Your task to perform on an android device: Check the news Image 0: 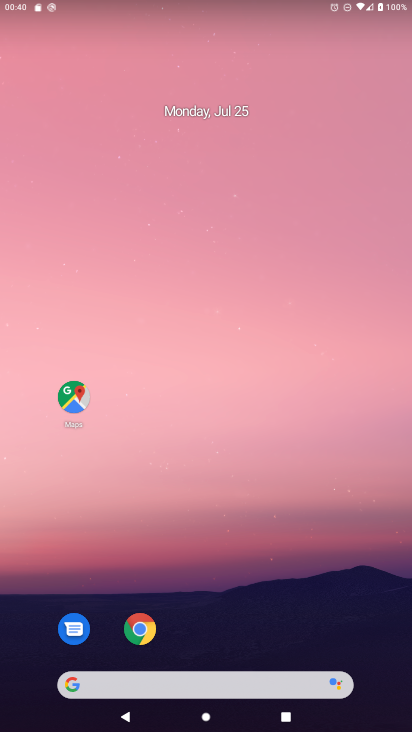
Step 0: drag from (195, 641) to (195, 188)
Your task to perform on an android device: Check the news Image 1: 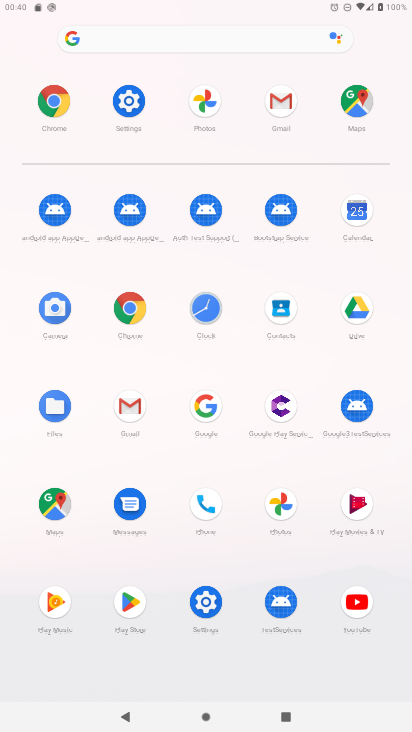
Step 1: click (139, 40)
Your task to perform on an android device: Check the news Image 2: 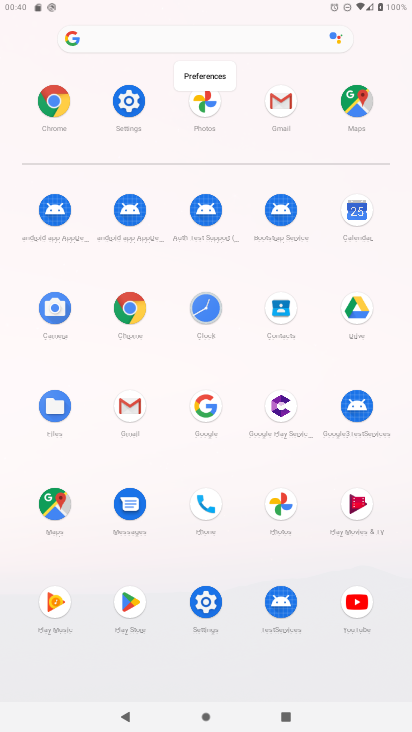
Step 2: click (149, 36)
Your task to perform on an android device: Check the news Image 3: 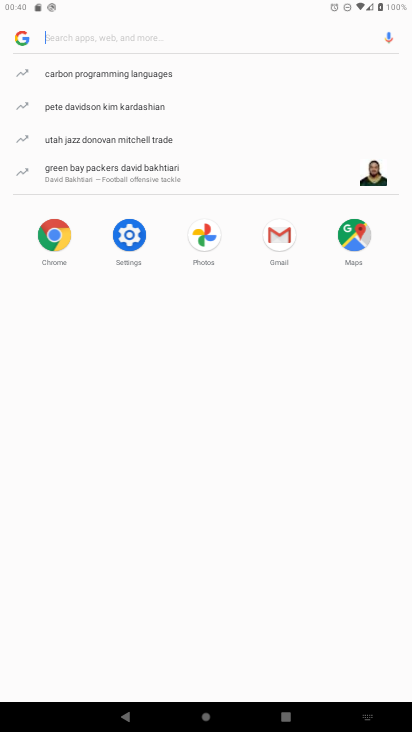
Step 3: type "news"
Your task to perform on an android device: Check the news Image 4: 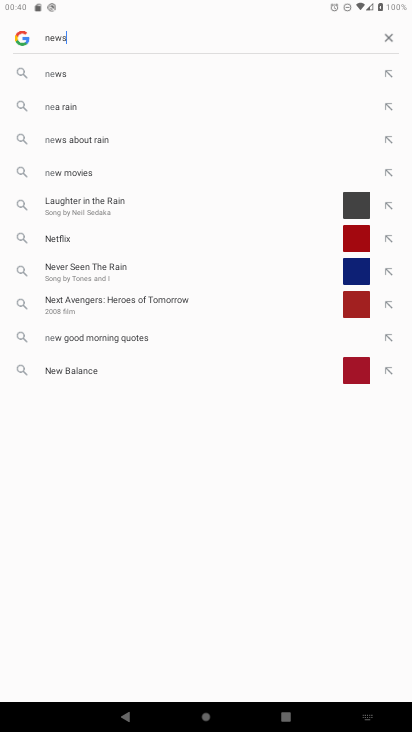
Step 4: type ""
Your task to perform on an android device: Check the news Image 5: 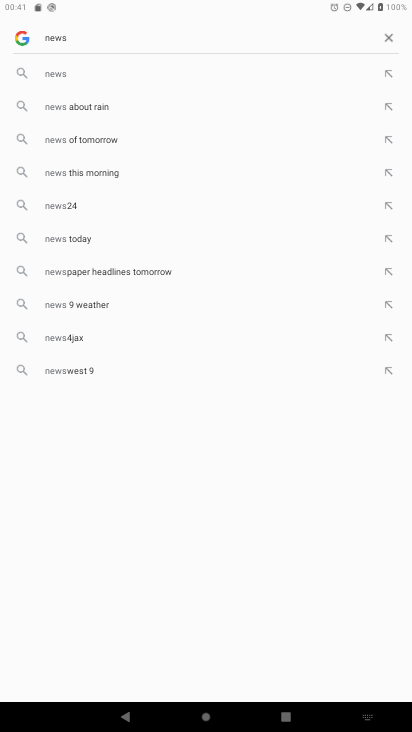
Step 5: click (60, 80)
Your task to perform on an android device: Check the news Image 6: 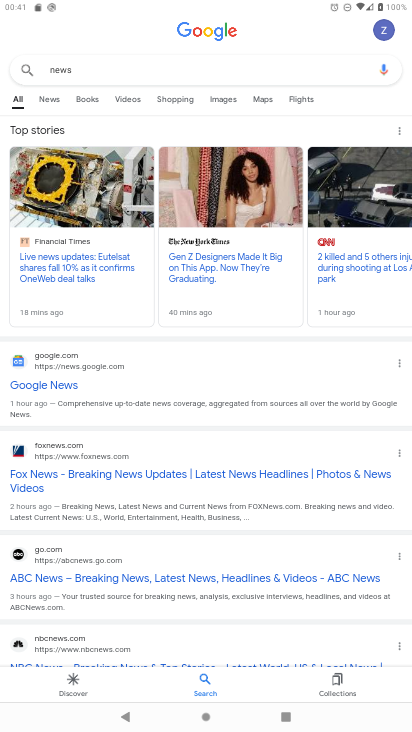
Step 6: click (41, 383)
Your task to perform on an android device: Check the news Image 7: 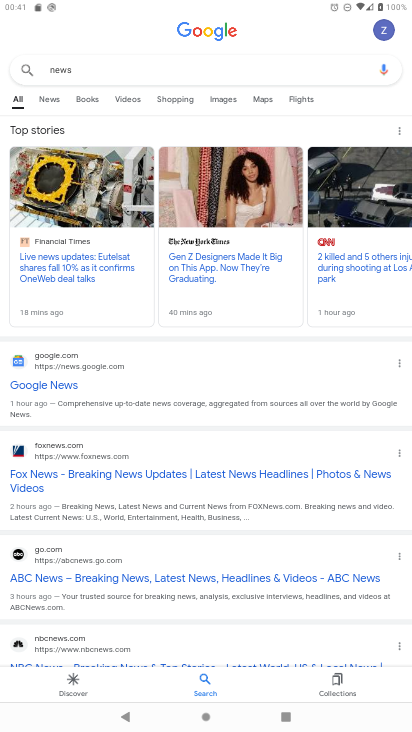
Step 7: task complete